Your task to perform on an android device: see tabs open on other devices in the chrome app Image 0: 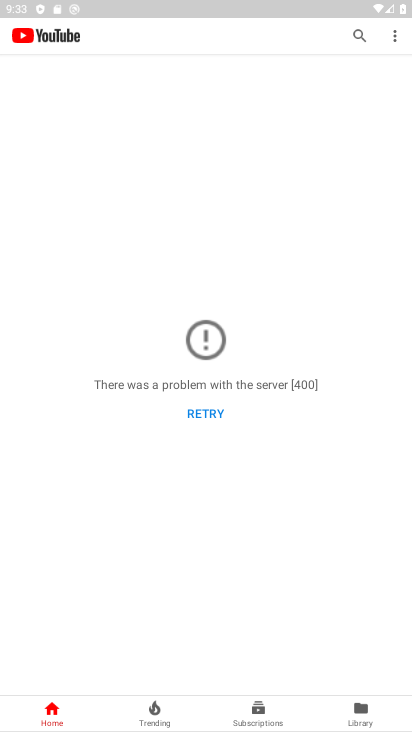
Step 0: press home button
Your task to perform on an android device: see tabs open on other devices in the chrome app Image 1: 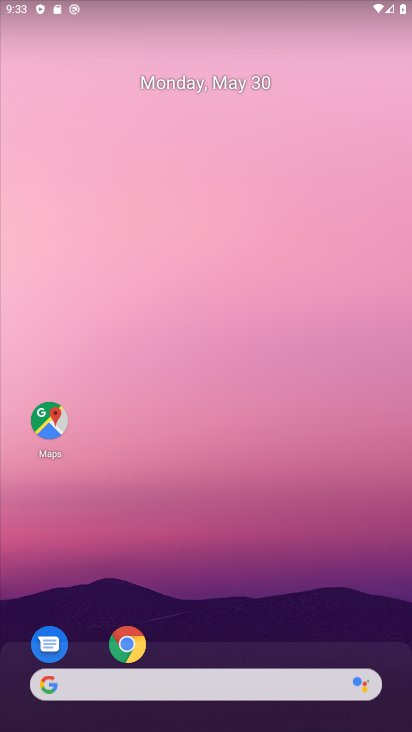
Step 1: click (127, 644)
Your task to perform on an android device: see tabs open on other devices in the chrome app Image 2: 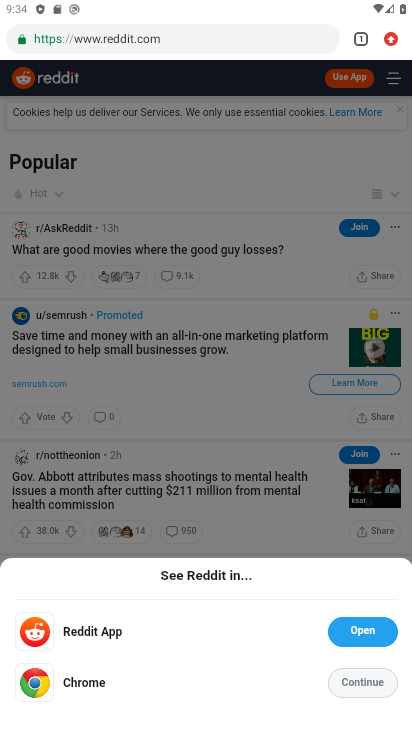
Step 2: task complete